Your task to perform on an android device: Open Google Maps Image 0: 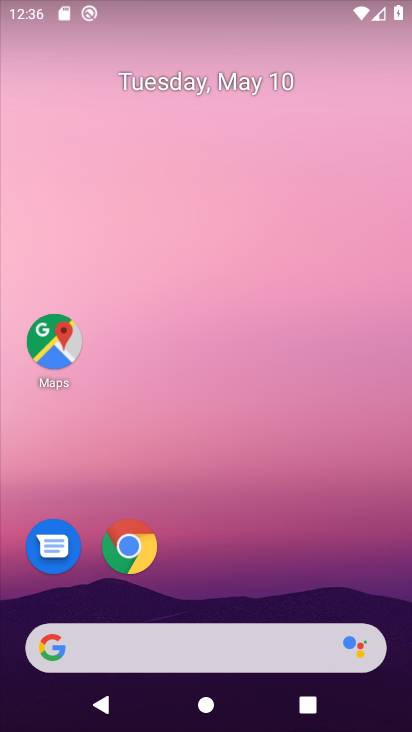
Step 0: press home button
Your task to perform on an android device: Open Google Maps Image 1: 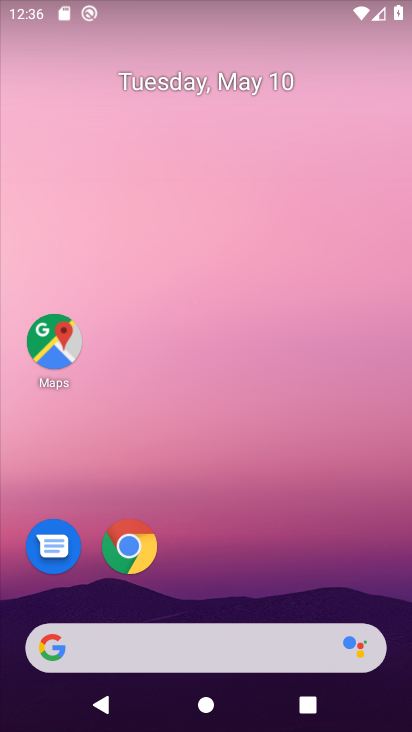
Step 1: click (108, 580)
Your task to perform on an android device: Open Google Maps Image 2: 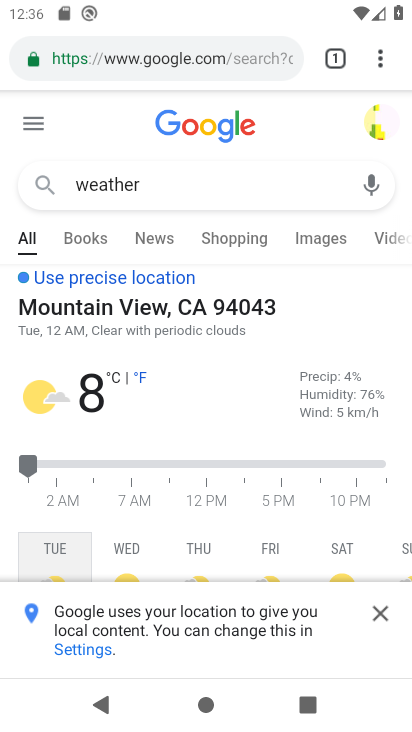
Step 2: task complete